Your task to perform on an android device: set default search engine in the chrome app Image 0: 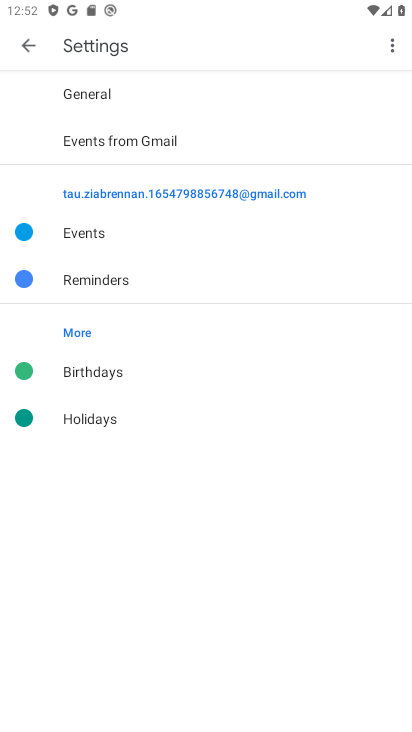
Step 0: press home button
Your task to perform on an android device: set default search engine in the chrome app Image 1: 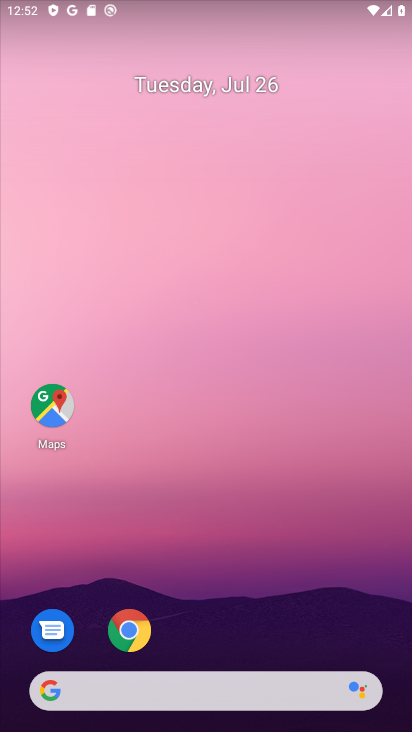
Step 1: drag from (218, 647) to (241, 5)
Your task to perform on an android device: set default search engine in the chrome app Image 2: 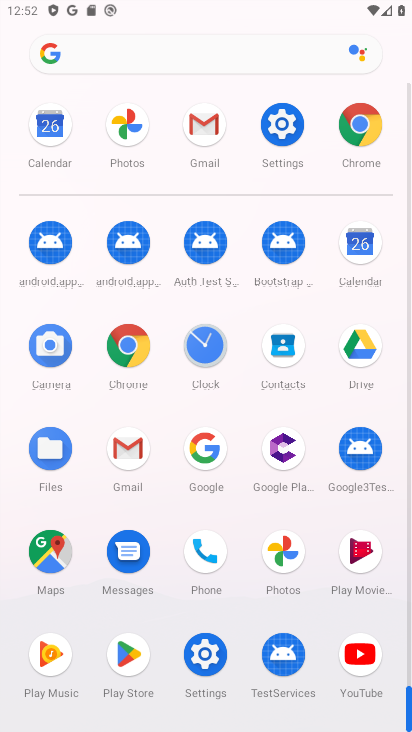
Step 2: click (358, 137)
Your task to perform on an android device: set default search engine in the chrome app Image 3: 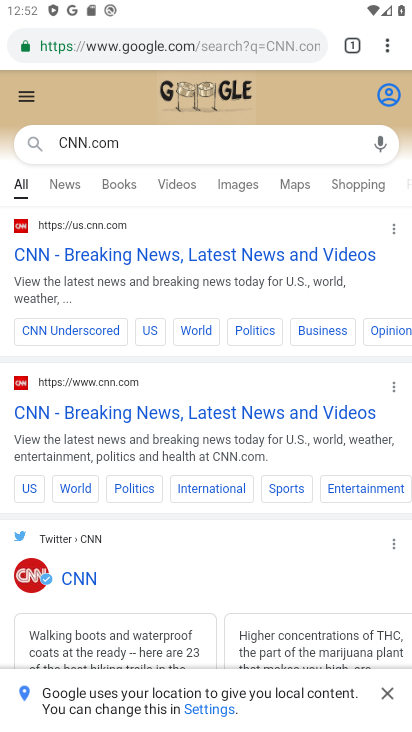
Step 3: drag from (389, 47) to (217, 521)
Your task to perform on an android device: set default search engine in the chrome app Image 4: 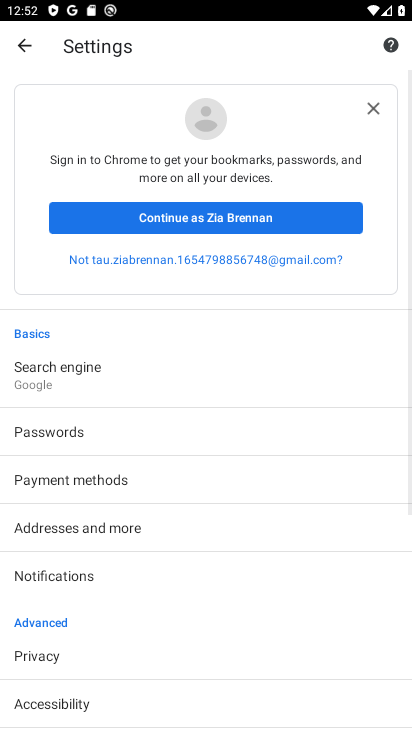
Step 4: click (82, 376)
Your task to perform on an android device: set default search engine in the chrome app Image 5: 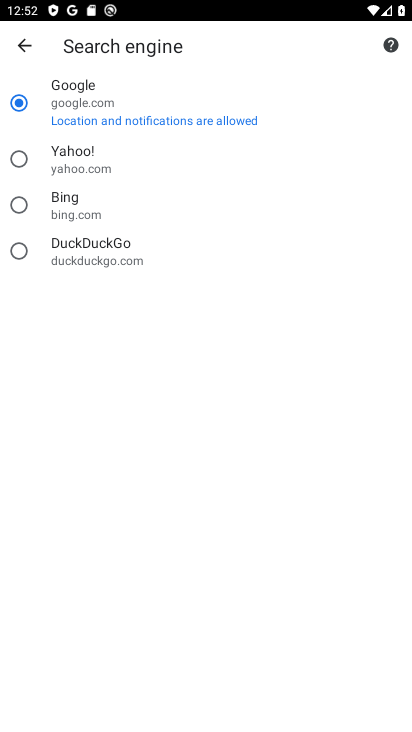
Step 5: task complete